Your task to perform on an android device: set an alarm Image 0: 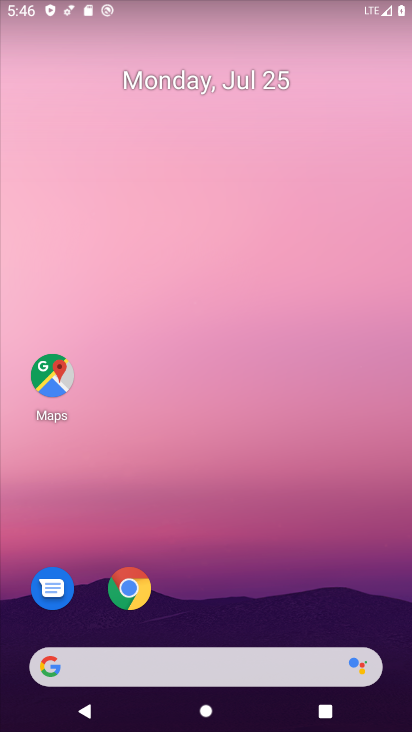
Step 0: drag from (184, 660) to (196, 46)
Your task to perform on an android device: set an alarm Image 1: 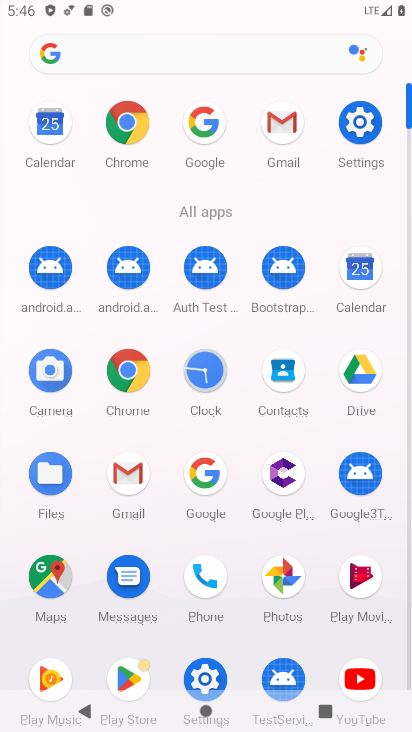
Step 1: click (207, 372)
Your task to perform on an android device: set an alarm Image 2: 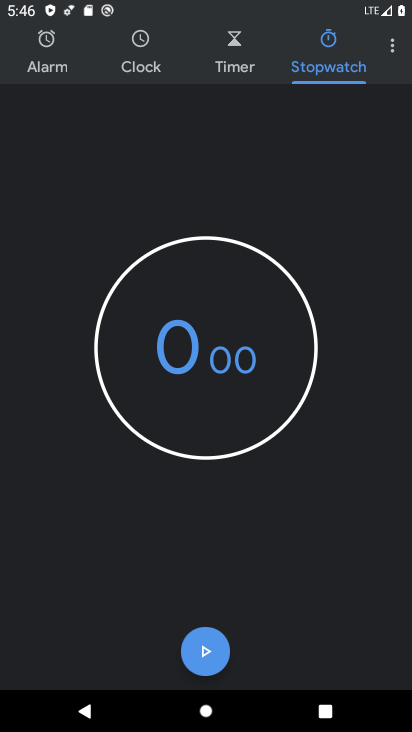
Step 2: click (46, 38)
Your task to perform on an android device: set an alarm Image 3: 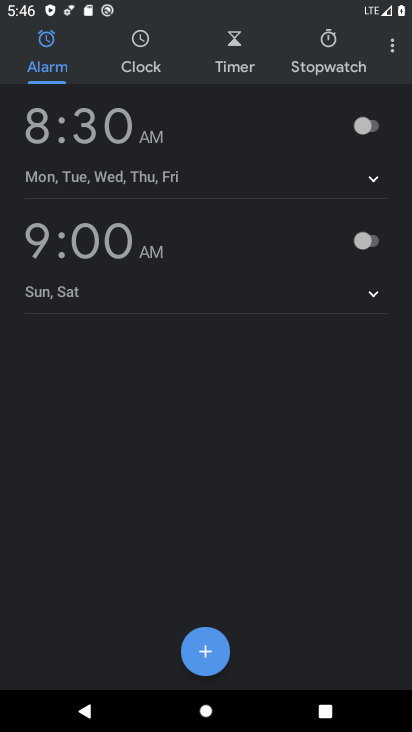
Step 3: click (206, 646)
Your task to perform on an android device: set an alarm Image 4: 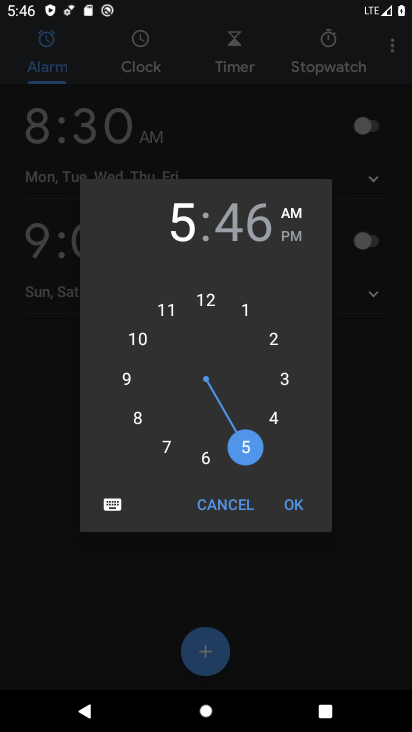
Step 4: click (208, 302)
Your task to perform on an android device: set an alarm Image 5: 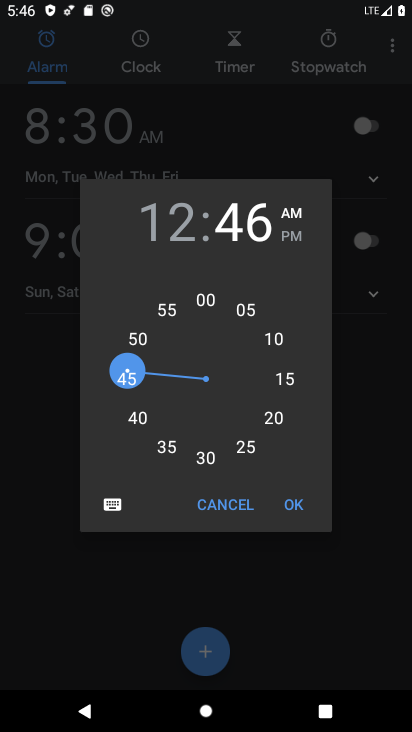
Step 5: click (124, 379)
Your task to perform on an android device: set an alarm Image 6: 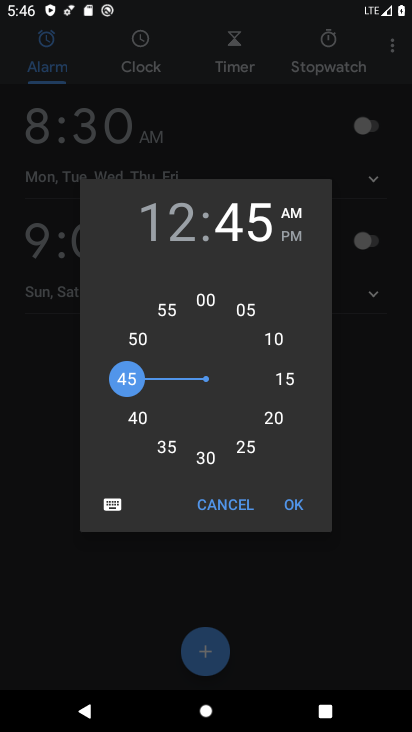
Step 6: click (292, 235)
Your task to perform on an android device: set an alarm Image 7: 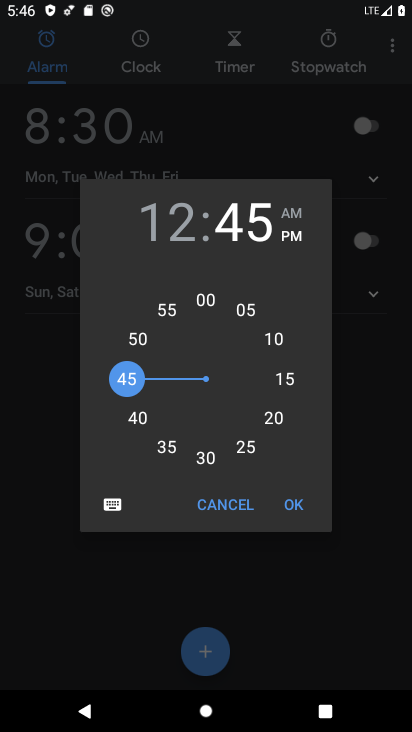
Step 7: click (304, 502)
Your task to perform on an android device: set an alarm Image 8: 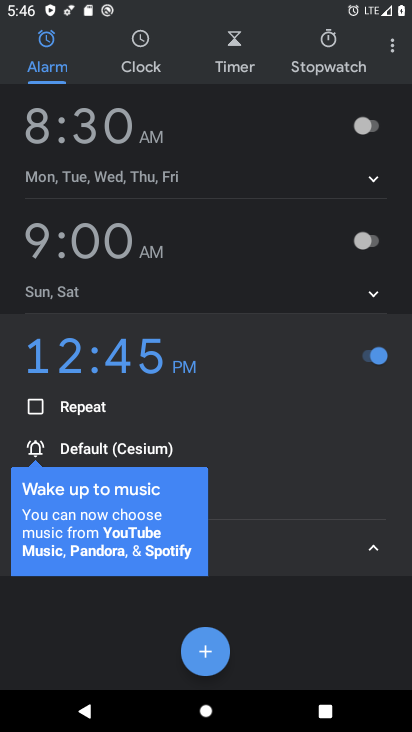
Step 8: task complete